Your task to perform on an android device: remove spam from my inbox in the gmail app Image 0: 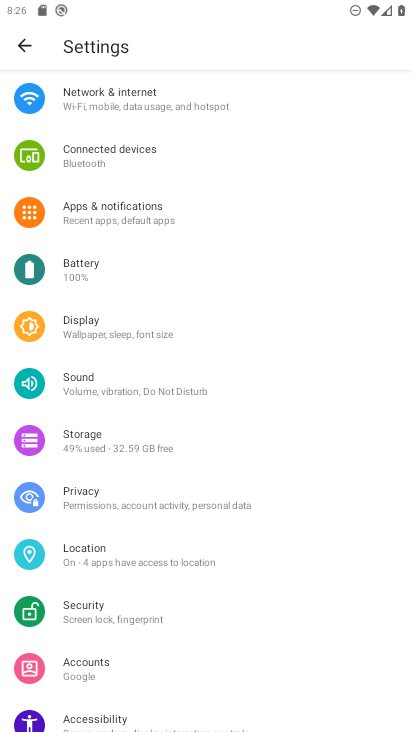
Step 0: press home button
Your task to perform on an android device: remove spam from my inbox in the gmail app Image 1: 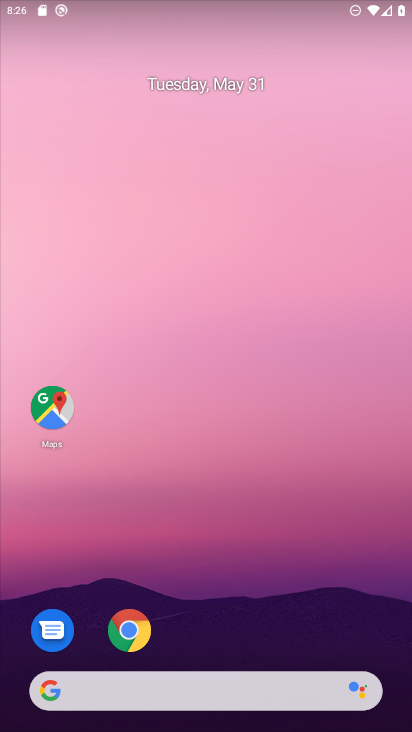
Step 1: drag from (335, 596) to (362, 135)
Your task to perform on an android device: remove spam from my inbox in the gmail app Image 2: 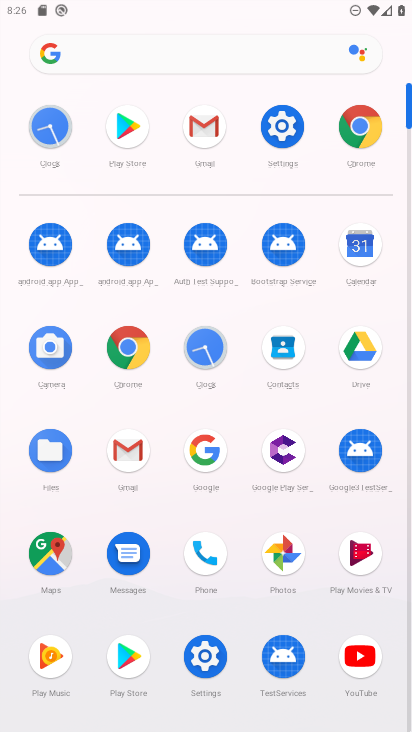
Step 2: click (210, 117)
Your task to perform on an android device: remove spam from my inbox in the gmail app Image 3: 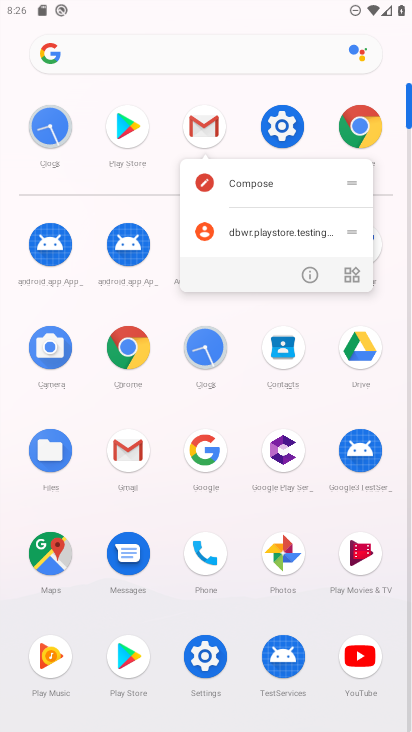
Step 3: click (211, 122)
Your task to perform on an android device: remove spam from my inbox in the gmail app Image 4: 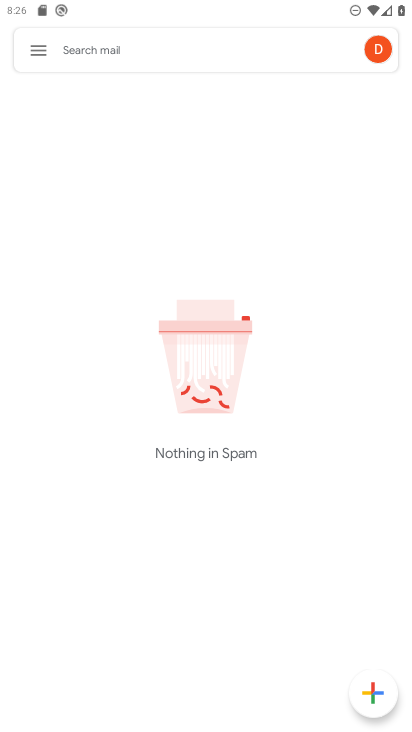
Step 4: click (44, 47)
Your task to perform on an android device: remove spam from my inbox in the gmail app Image 5: 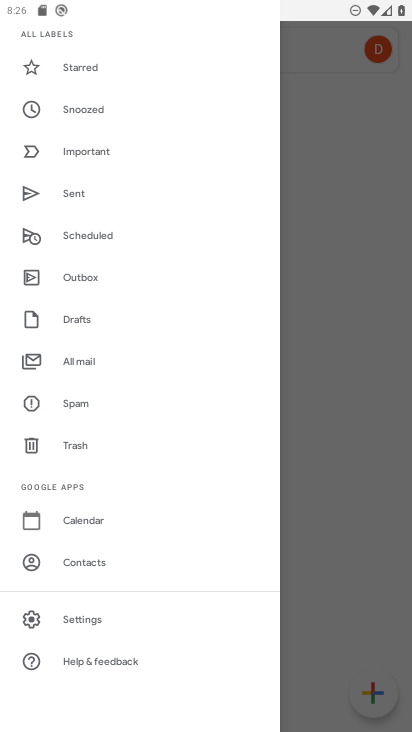
Step 5: click (81, 400)
Your task to perform on an android device: remove spam from my inbox in the gmail app Image 6: 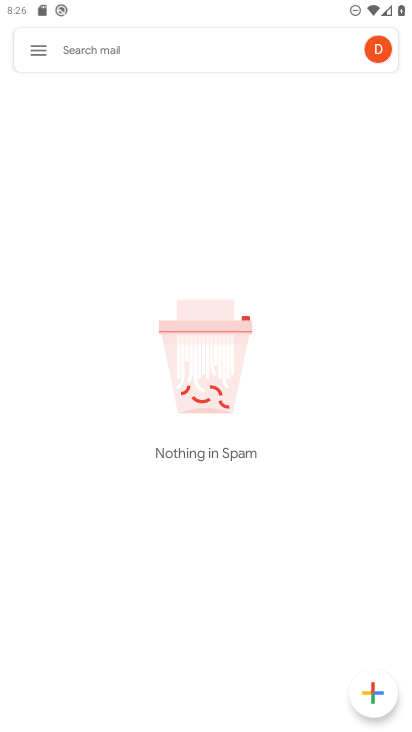
Step 6: task complete